Your task to perform on an android device: change the upload size in google photos Image 0: 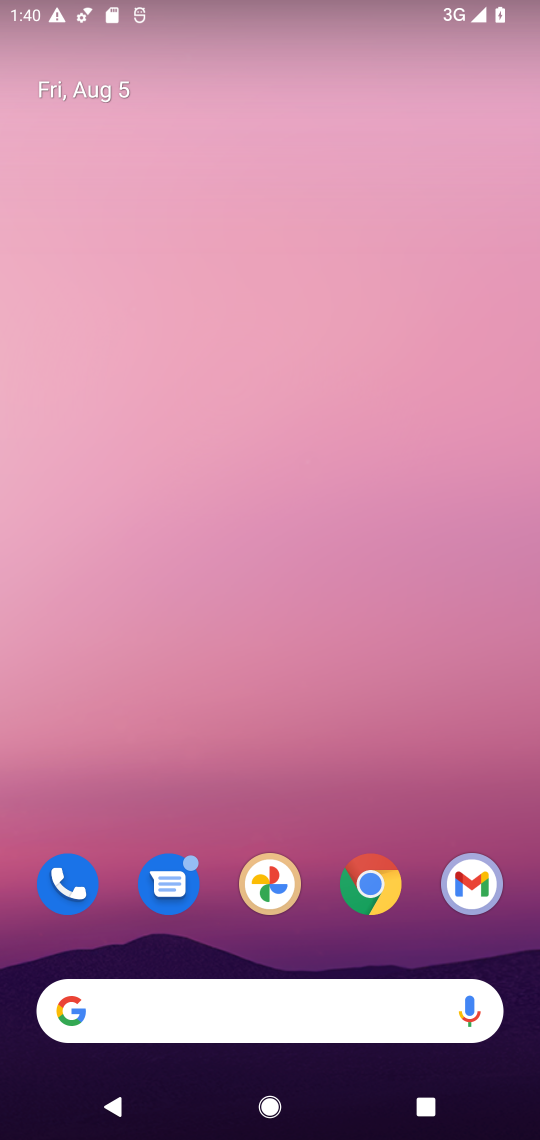
Step 0: drag from (489, 827) to (247, 14)
Your task to perform on an android device: change the upload size in google photos Image 1: 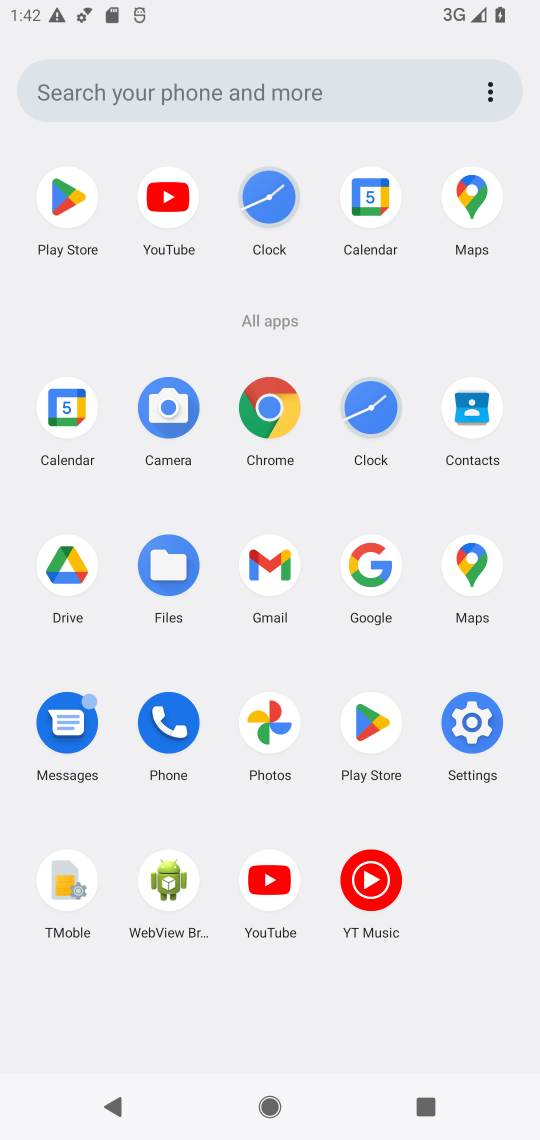
Step 1: click (261, 728)
Your task to perform on an android device: change the upload size in google photos Image 2: 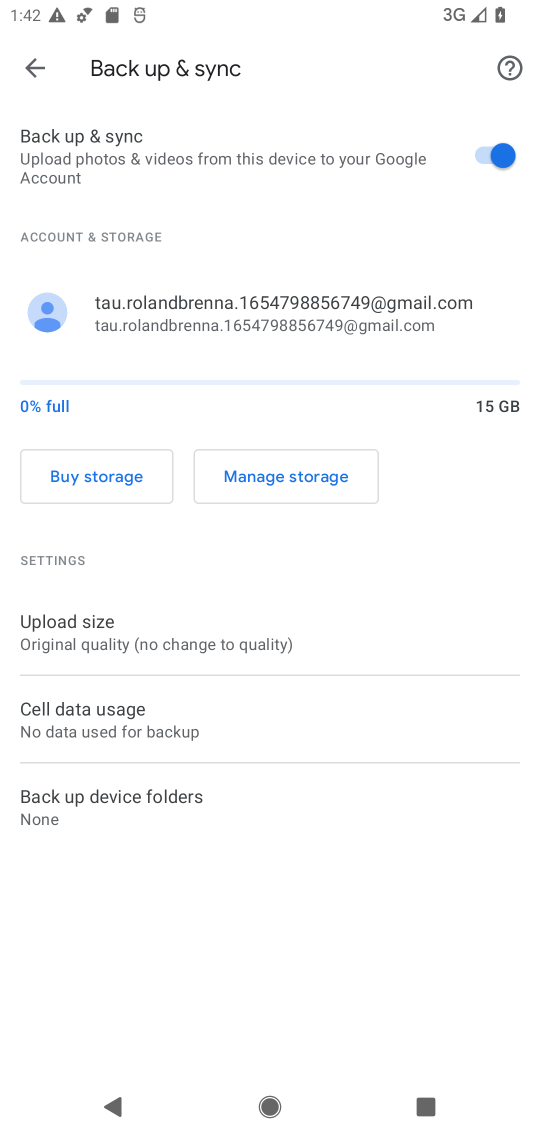
Step 2: click (193, 639)
Your task to perform on an android device: change the upload size in google photos Image 3: 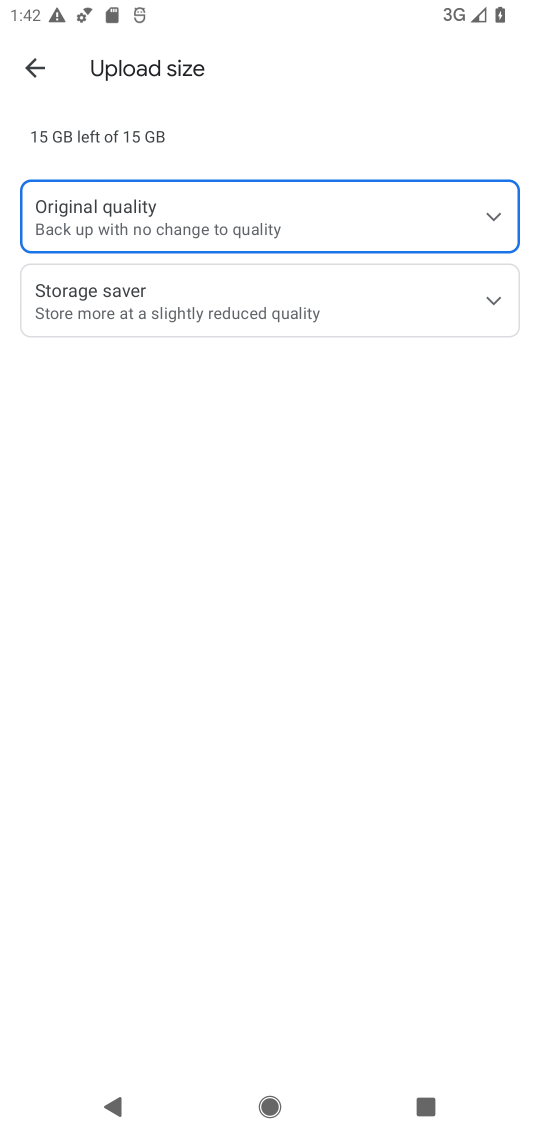
Step 3: click (369, 312)
Your task to perform on an android device: change the upload size in google photos Image 4: 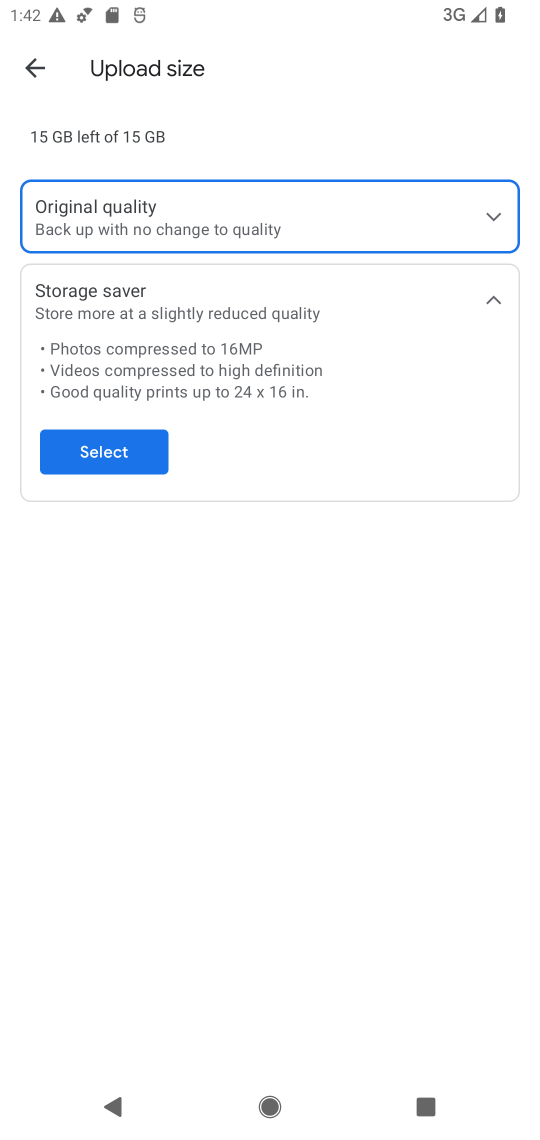
Step 4: click (92, 458)
Your task to perform on an android device: change the upload size in google photos Image 5: 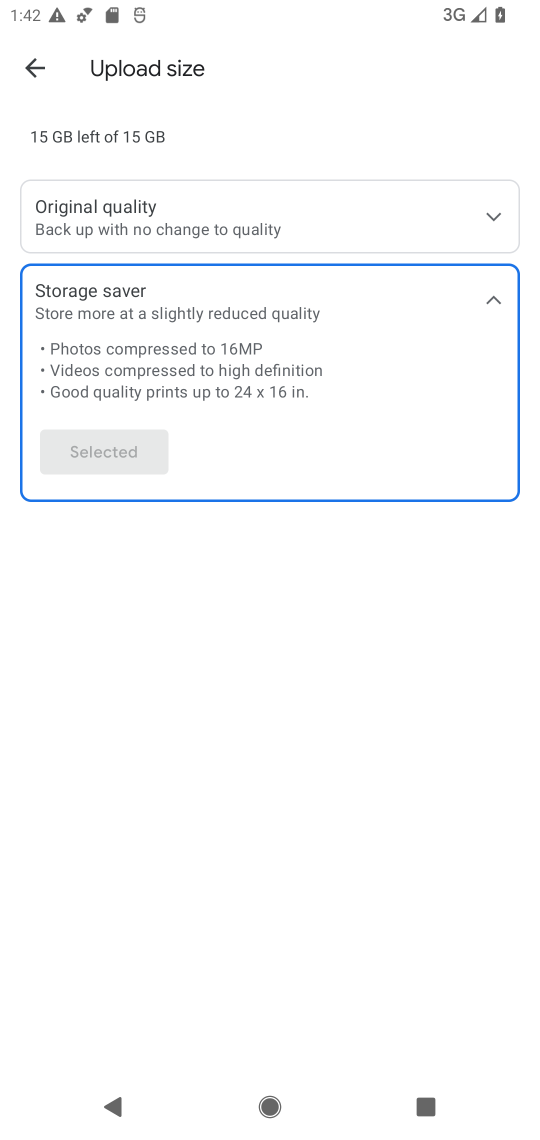
Step 5: task complete